Your task to perform on an android device: change the clock display to show seconds Image 0: 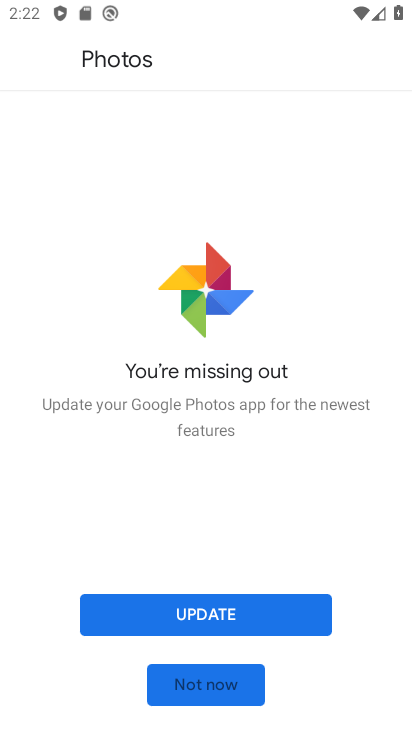
Step 0: press home button
Your task to perform on an android device: change the clock display to show seconds Image 1: 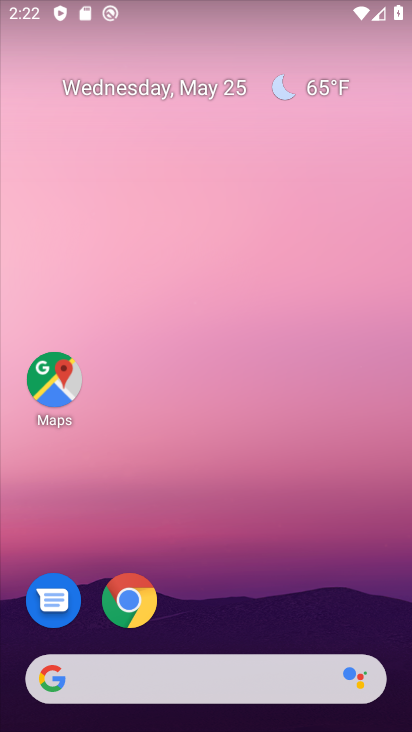
Step 1: drag from (253, 462) to (292, 133)
Your task to perform on an android device: change the clock display to show seconds Image 2: 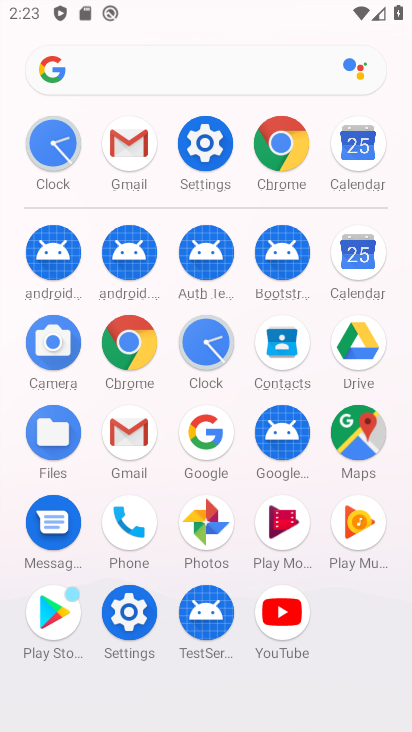
Step 2: click (200, 331)
Your task to perform on an android device: change the clock display to show seconds Image 3: 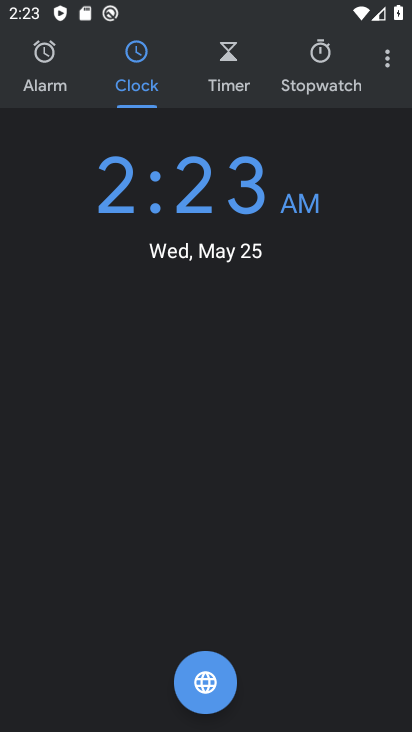
Step 3: click (384, 59)
Your task to perform on an android device: change the clock display to show seconds Image 4: 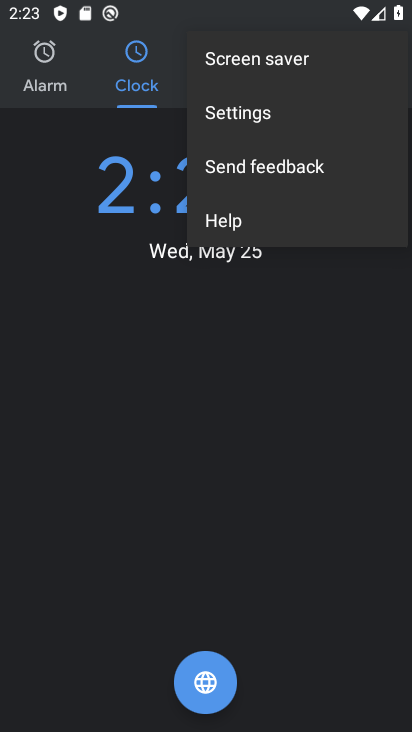
Step 4: click (243, 130)
Your task to perform on an android device: change the clock display to show seconds Image 5: 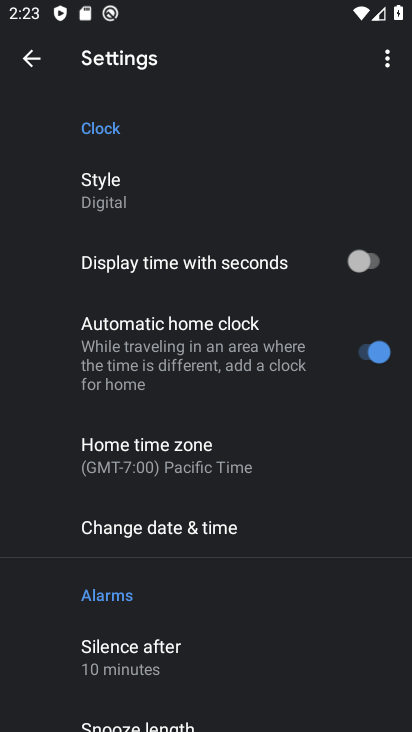
Step 5: click (350, 263)
Your task to perform on an android device: change the clock display to show seconds Image 6: 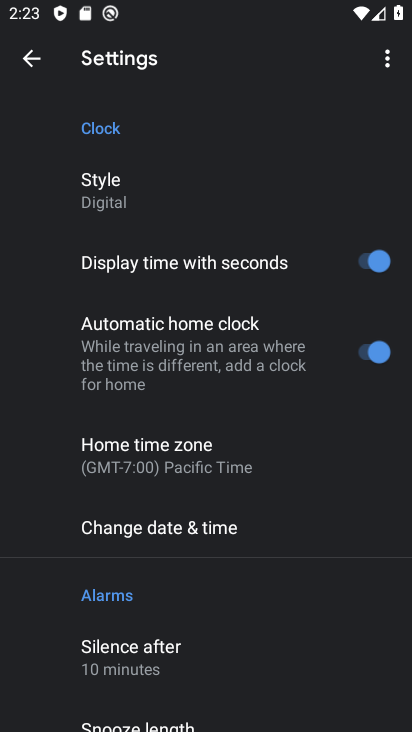
Step 6: task complete